Your task to perform on an android device: Search for usb-a to usb-b on target, select the first entry, add it to the cart, then select checkout. Image 0: 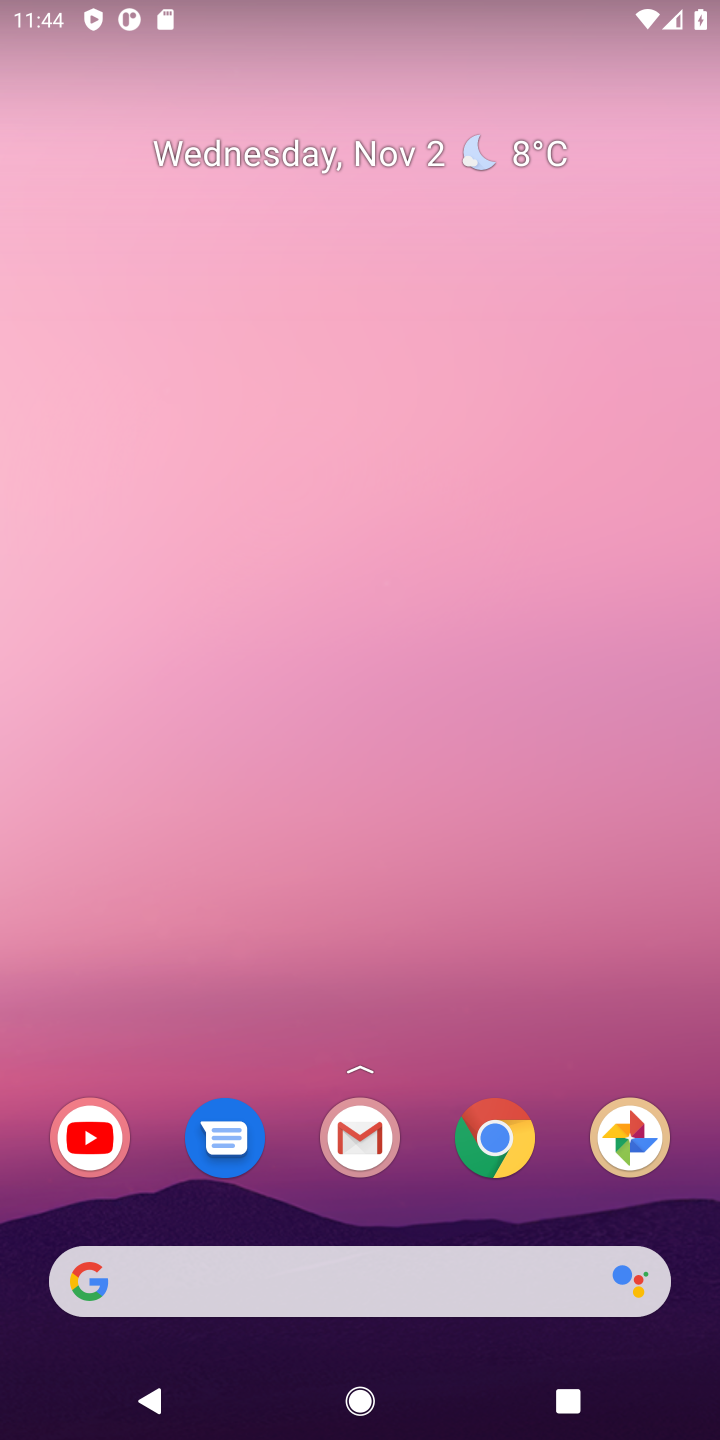
Step 0: click (482, 1122)
Your task to perform on an android device: Search for usb-a to usb-b on target, select the first entry, add it to the cart, then select checkout. Image 1: 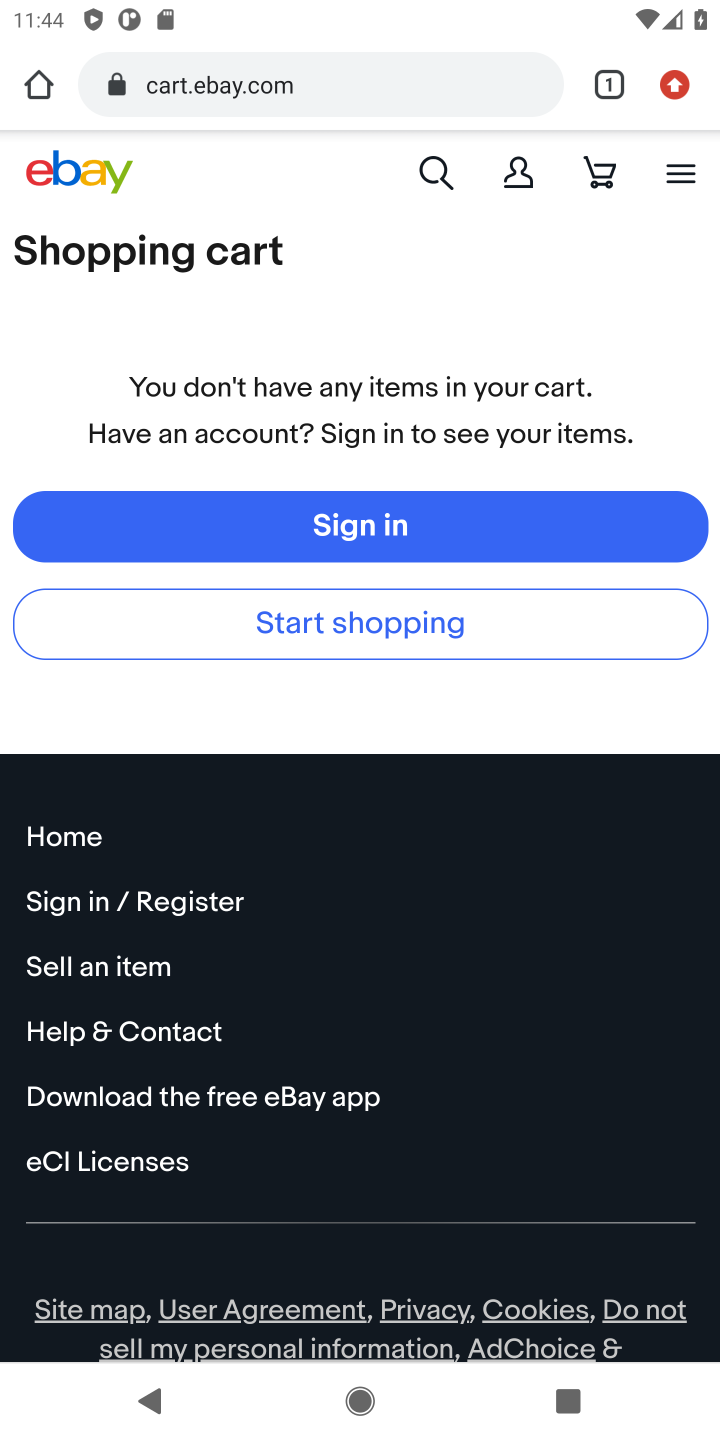
Step 1: click (209, 163)
Your task to perform on an android device: Search for usb-a to usb-b on target, select the first entry, add it to the cart, then select checkout. Image 2: 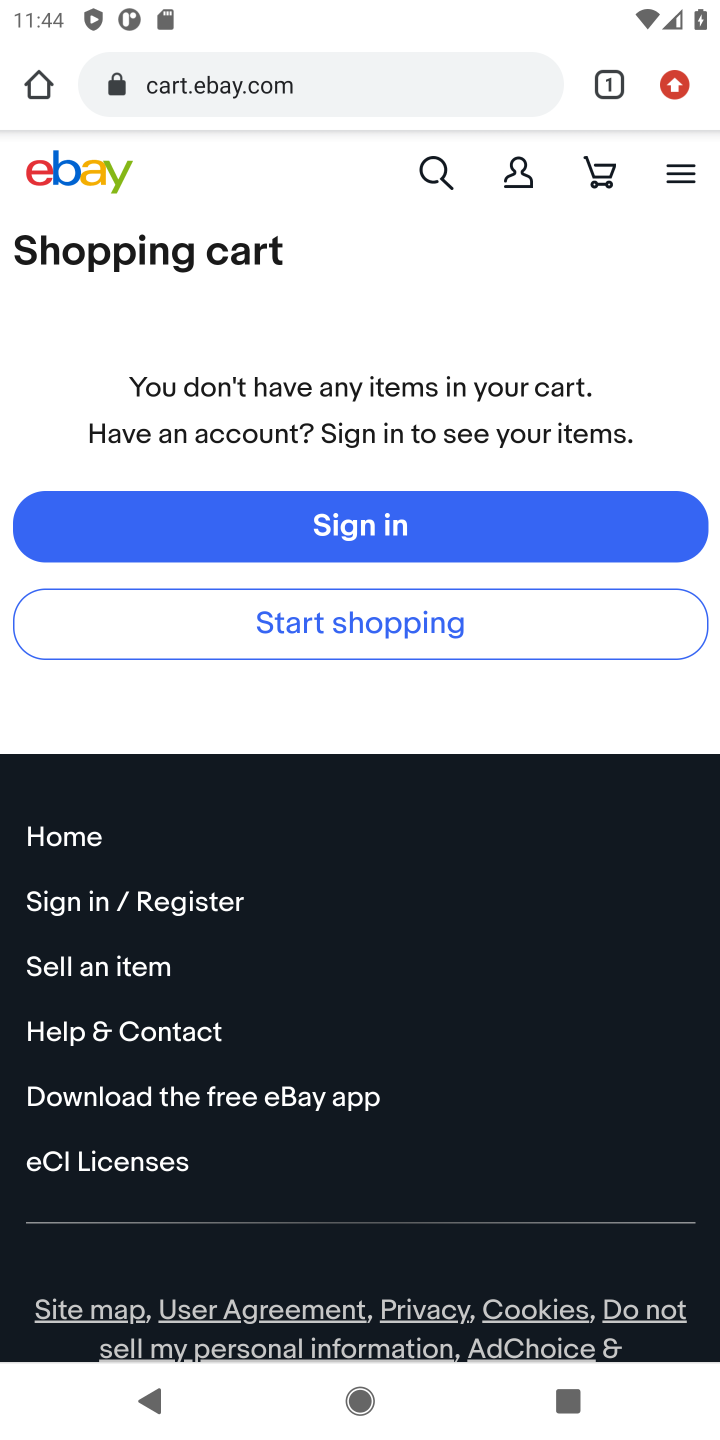
Step 2: click (204, 93)
Your task to perform on an android device: Search for usb-a to usb-b on target, select the first entry, add it to the cart, then select checkout. Image 3: 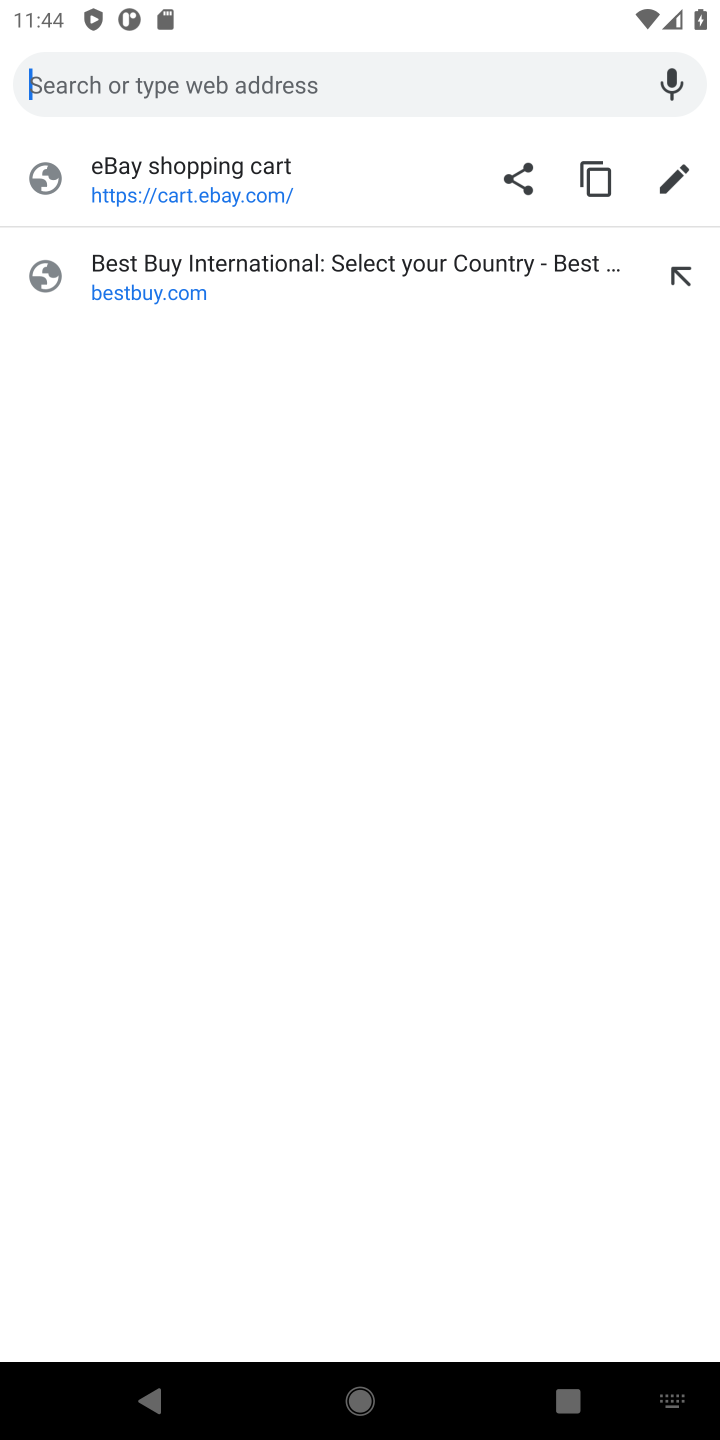
Step 3: type "target"
Your task to perform on an android device: Search for usb-a to usb-b on target, select the first entry, add it to the cart, then select checkout. Image 4: 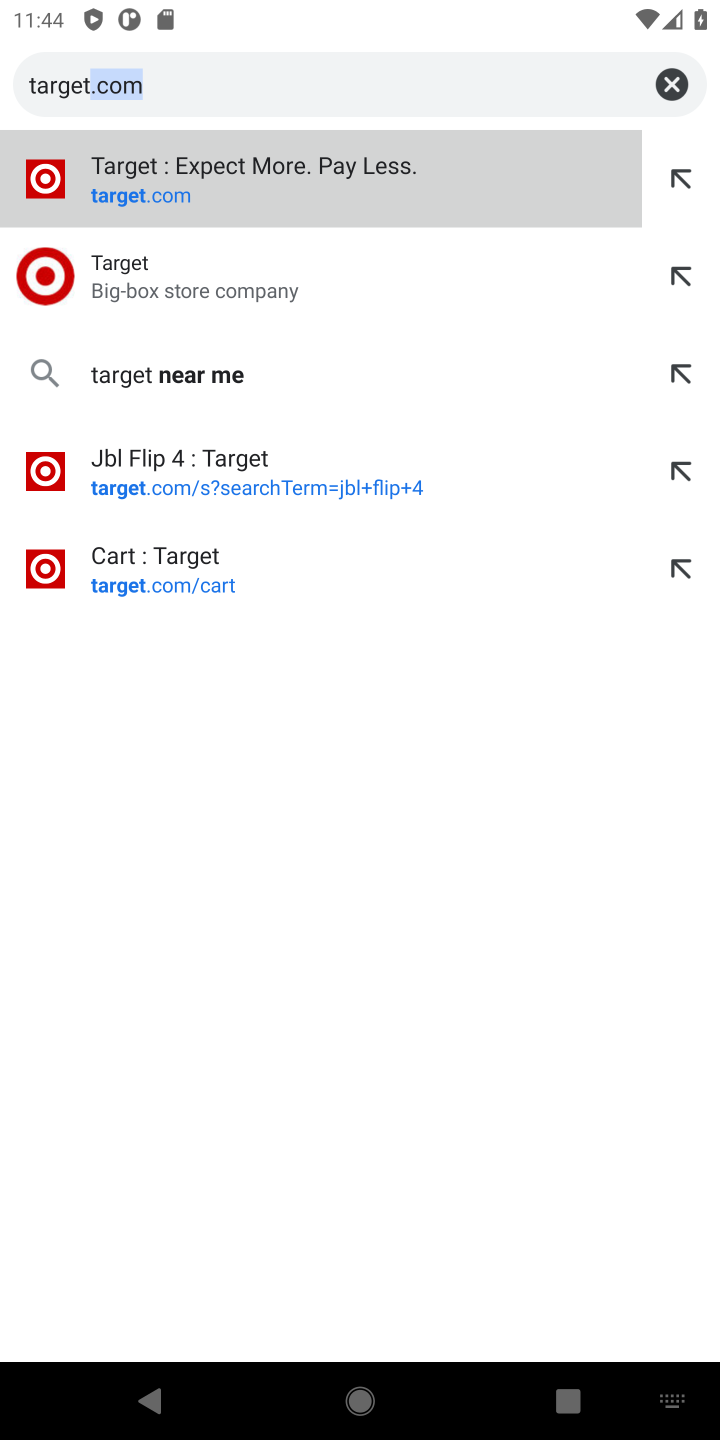
Step 4: click (501, 275)
Your task to perform on an android device: Search for usb-a to usb-b on target, select the first entry, add it to the cart, then select checkout. Image 5: 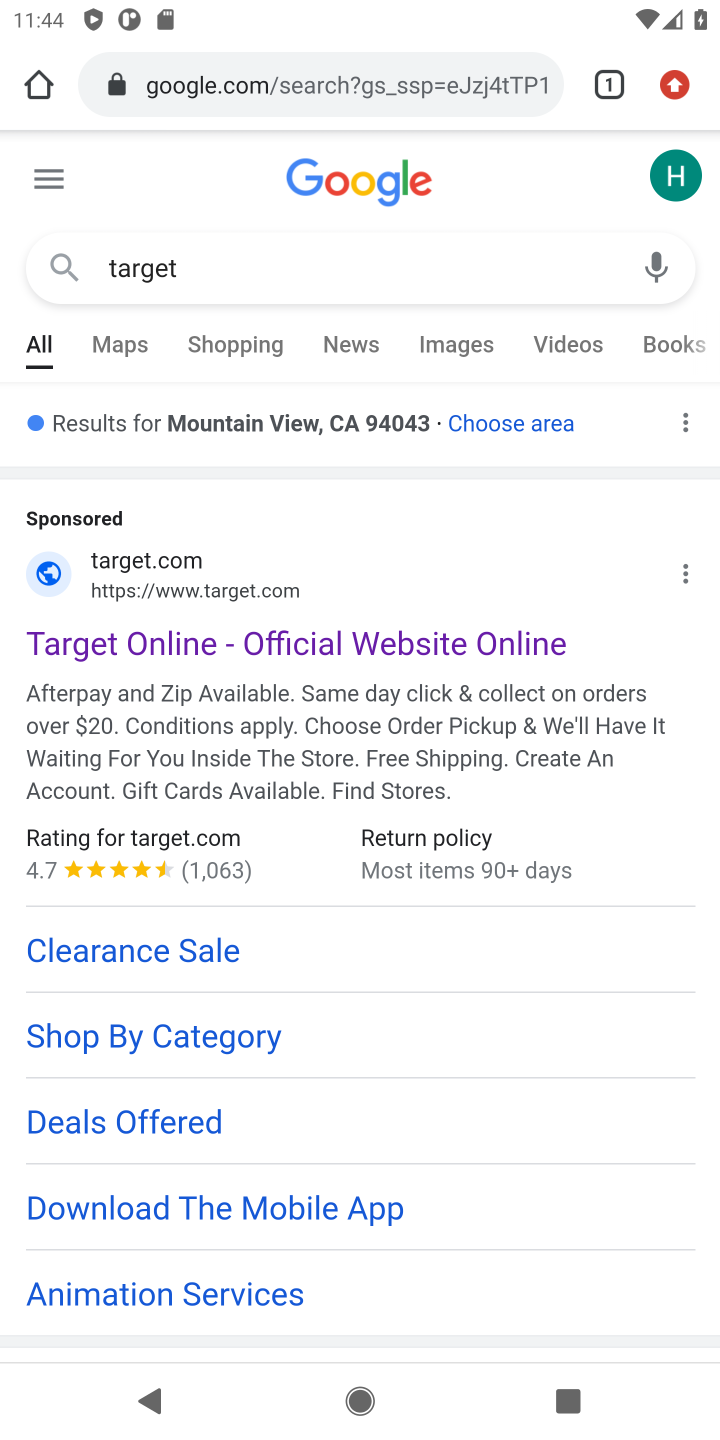
Step 5: click (88, 617)
Your task to perform on an android device: Search for usb-a to usb-b on target, select the first entry, add it to the cart, then select checkout. Image 6: 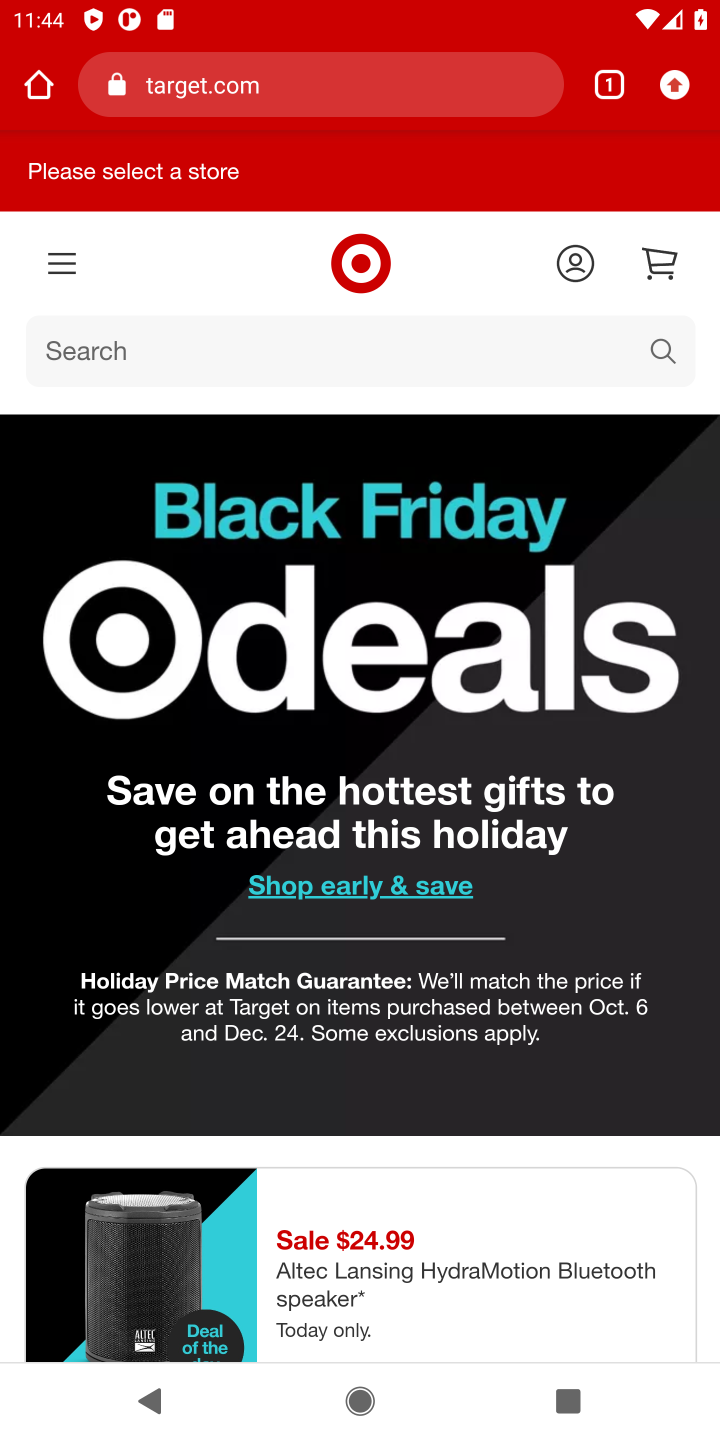
Step 6: click (235, 329)
Your task to perform on an android device: Search for usb-a to usb-b on target, select the first entry, add it to the cart, then select checkout. Image 7: 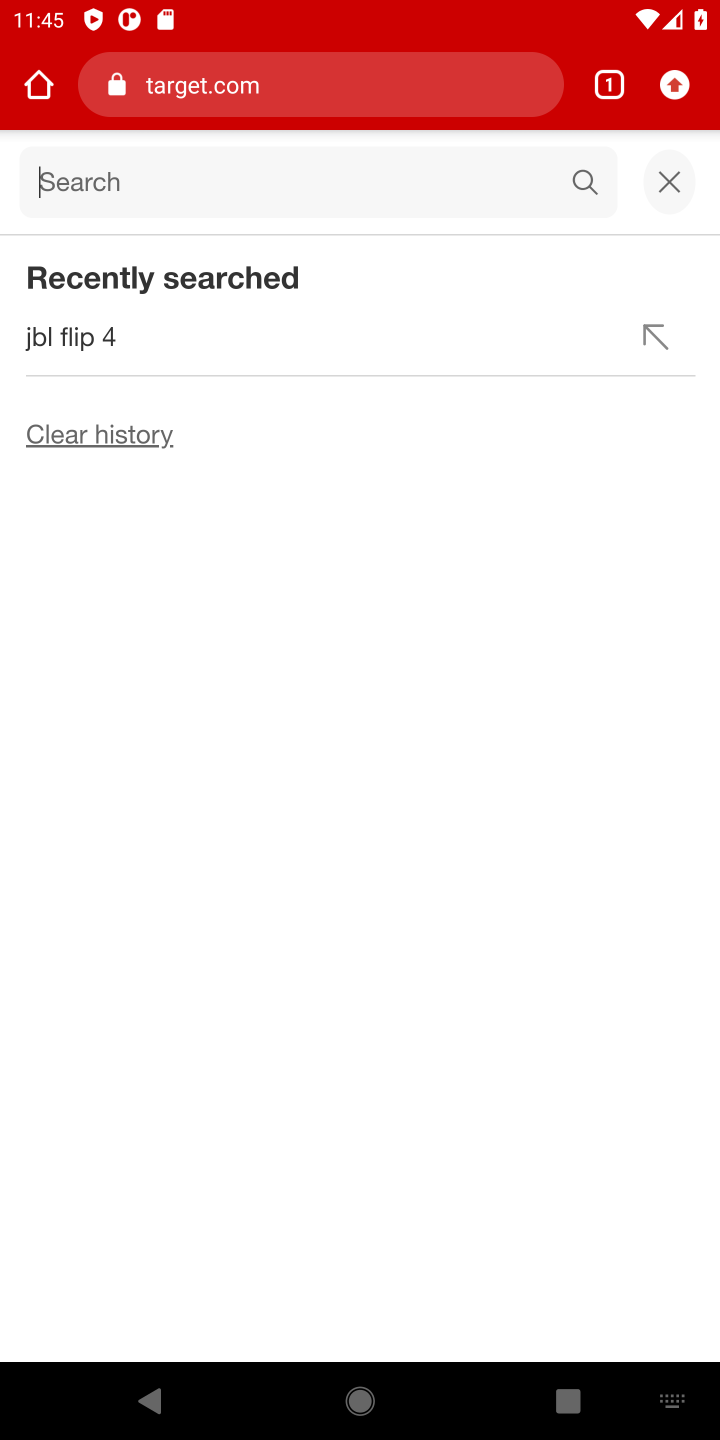
Step 7: click (319, 342)
Your task to perform on an android device: Search for usb-a to usb-b on target, select the first entry, add it to the cart, then select checkout. Image 8: 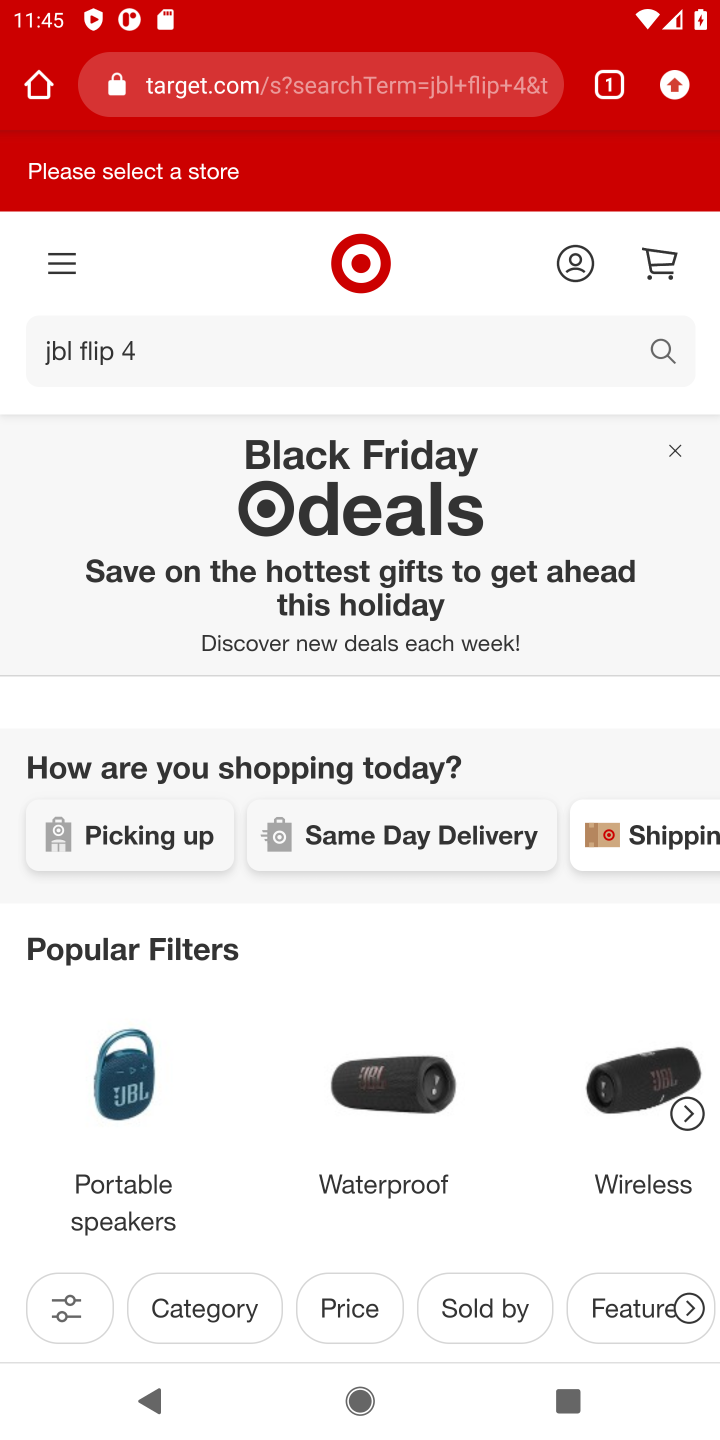
Step 8: type "usb-a to usb-b"
Your task to perform on an android device: Search for usb-a to usb-b on target, select the first entry, add it to the cart, then select checkout. Image 9: 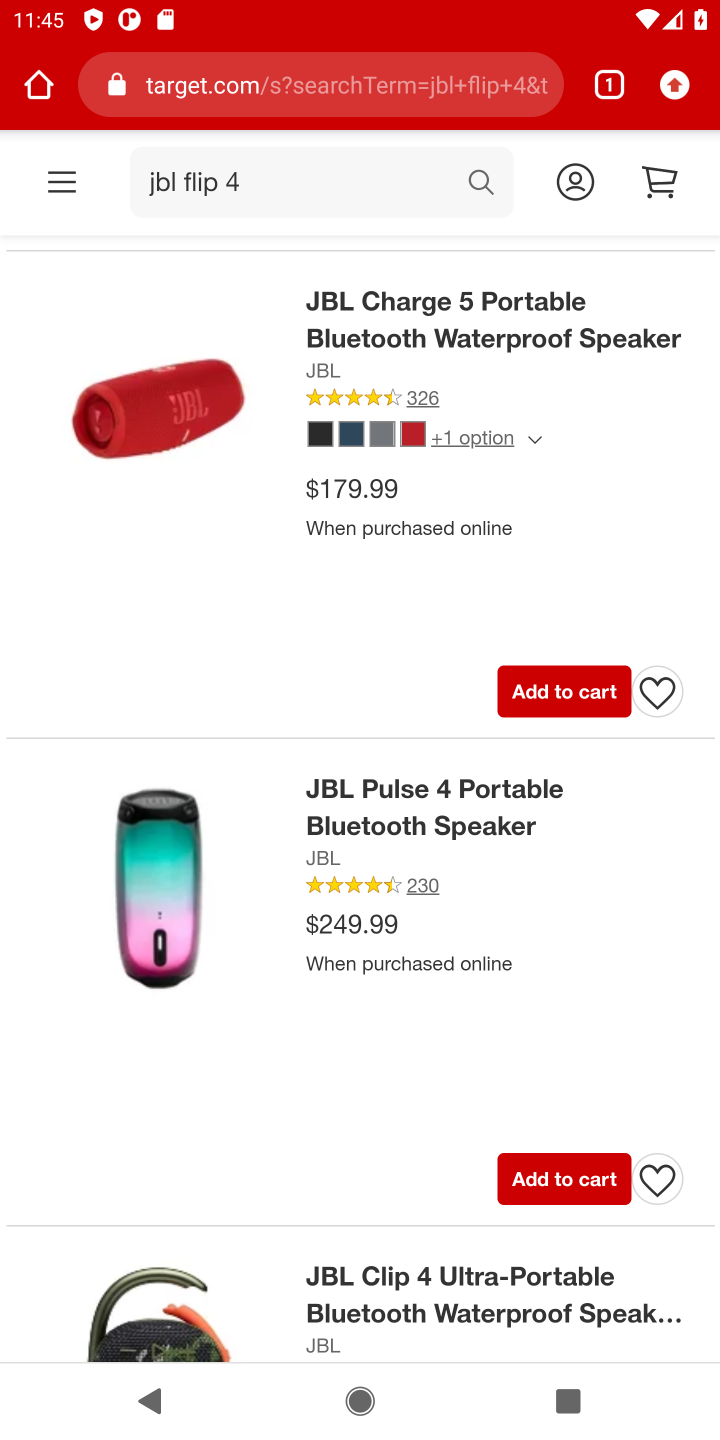
Step 9: click (645, 336)
Your task to perform on an android device: Search for usb-a to usb-b on target, select the first entry, add it to the cart, then select checkout. Image 10: 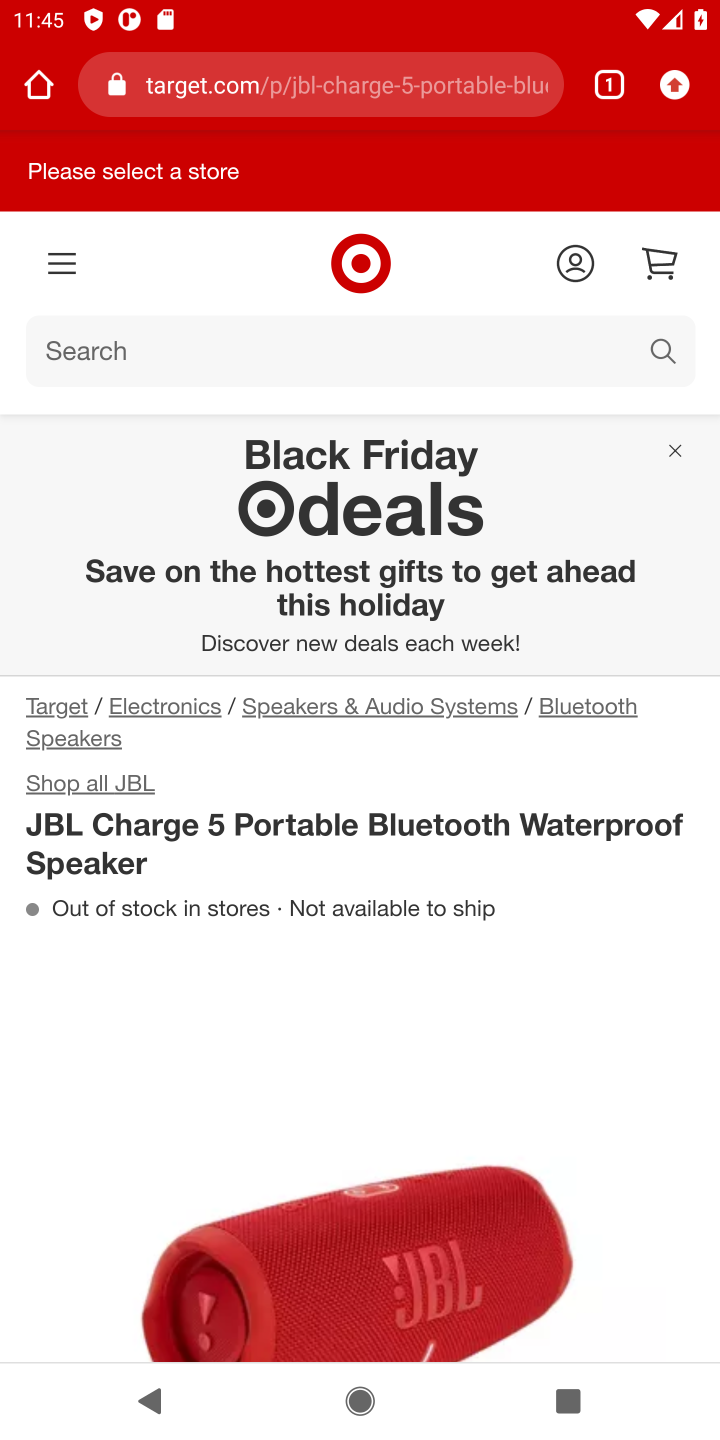
Step 10: click (487, 190)
Your task to perform on an android device: Search for usb-a to usb-b on target, select the first entry, add it to the cart, then select checkout. Image 11: 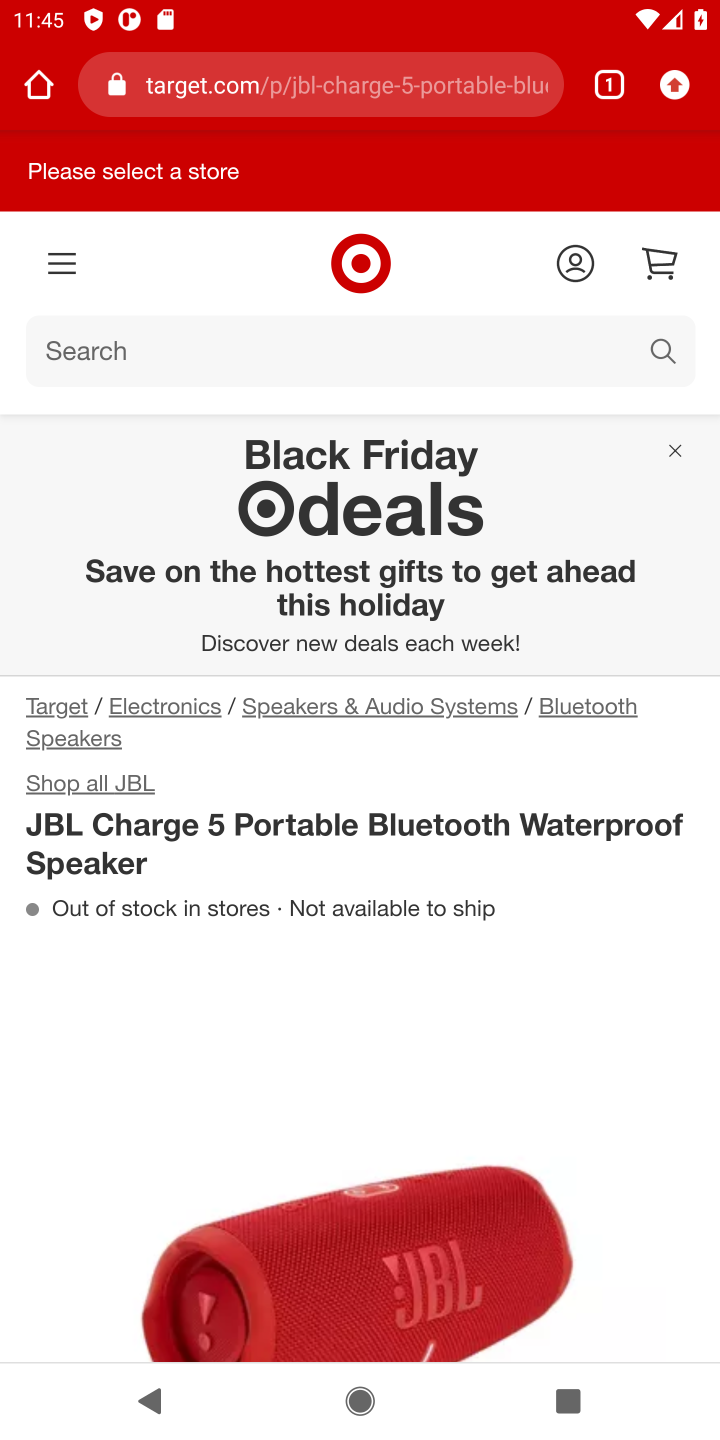
Step 11: click (368, 267)
Your task to perform on an android device: Search for usb-a to usb-b on target, select the first entry, add it to the cart, then select checkout. Image 12: 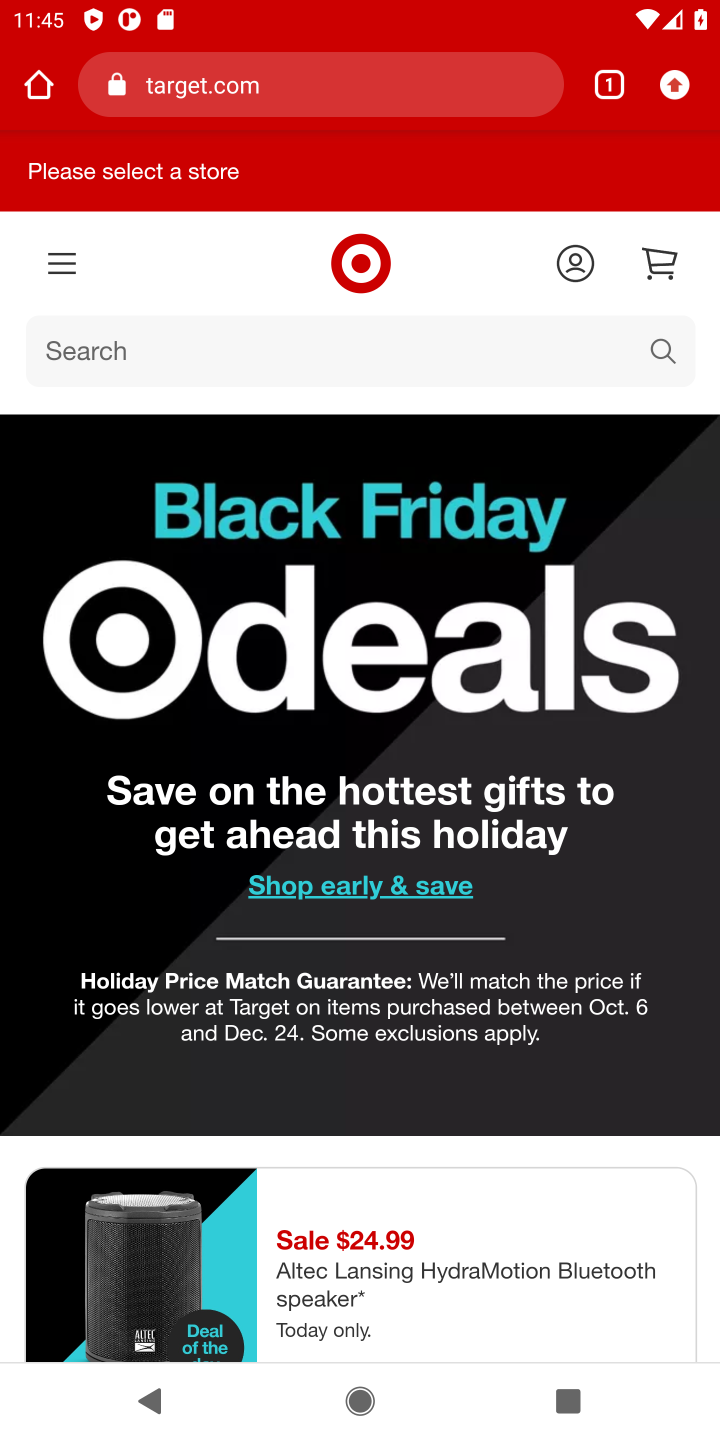
Step 12: click (341, 338)
Your task to perform on an android device: Search for usb-a to usb-b on target, select the first entry, add it to the cart, then select checkout. Image 13: 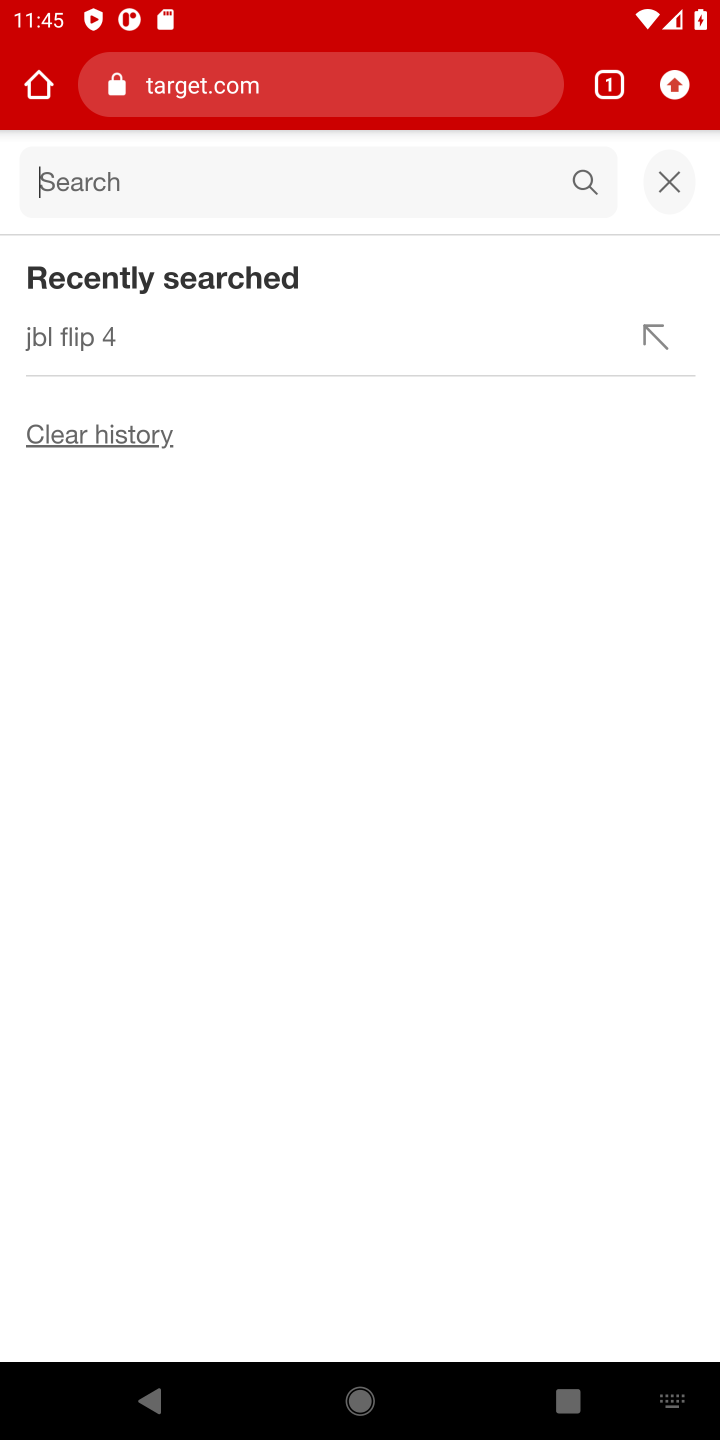
Step 13: type "usb-a to usb-b"
Your task to perform on an android device: Search for usb-a to usb-b on target, select the first entry, add it to the cart, then select checkout. Image 14: 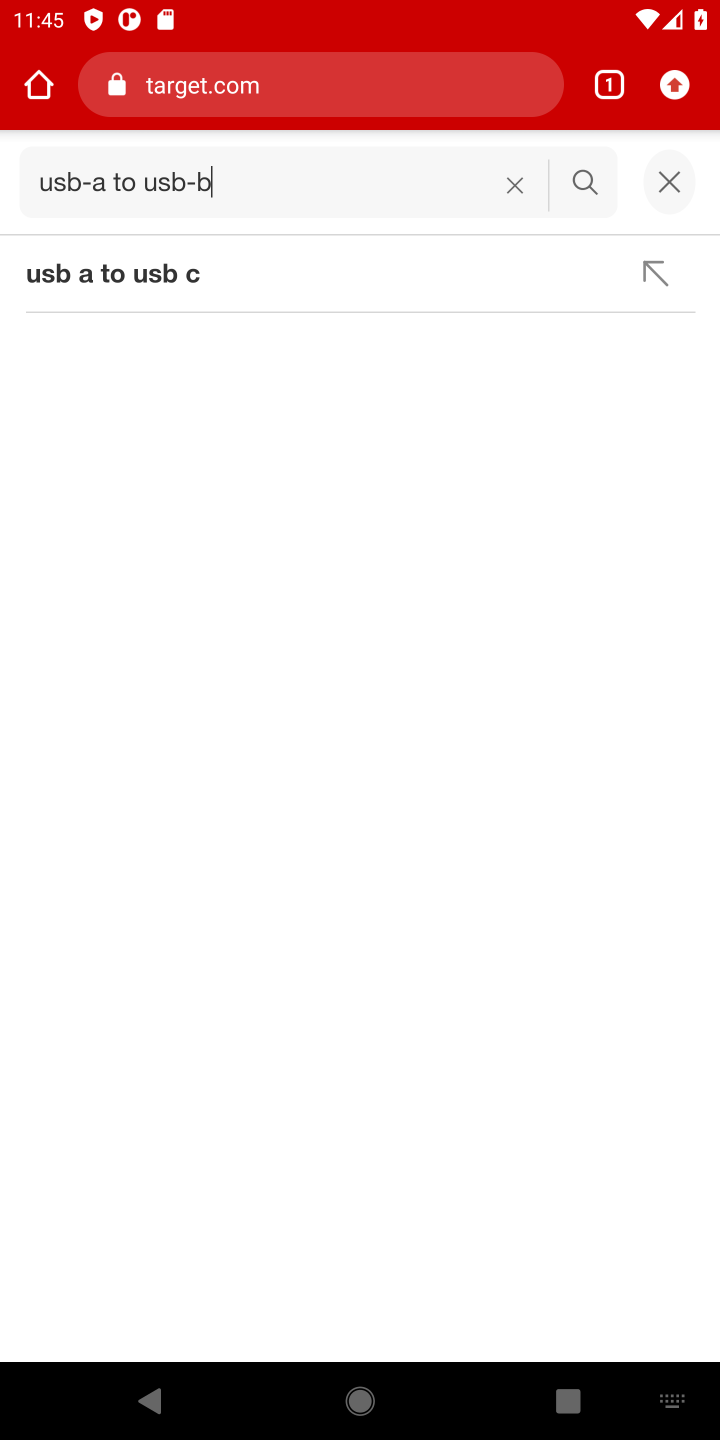
Step 14: click (596, 193)
Your task to perform on an android device: Search for usb-a to usb-b on target, select the first entry, add it to the cart, then select checkout. Image 15: 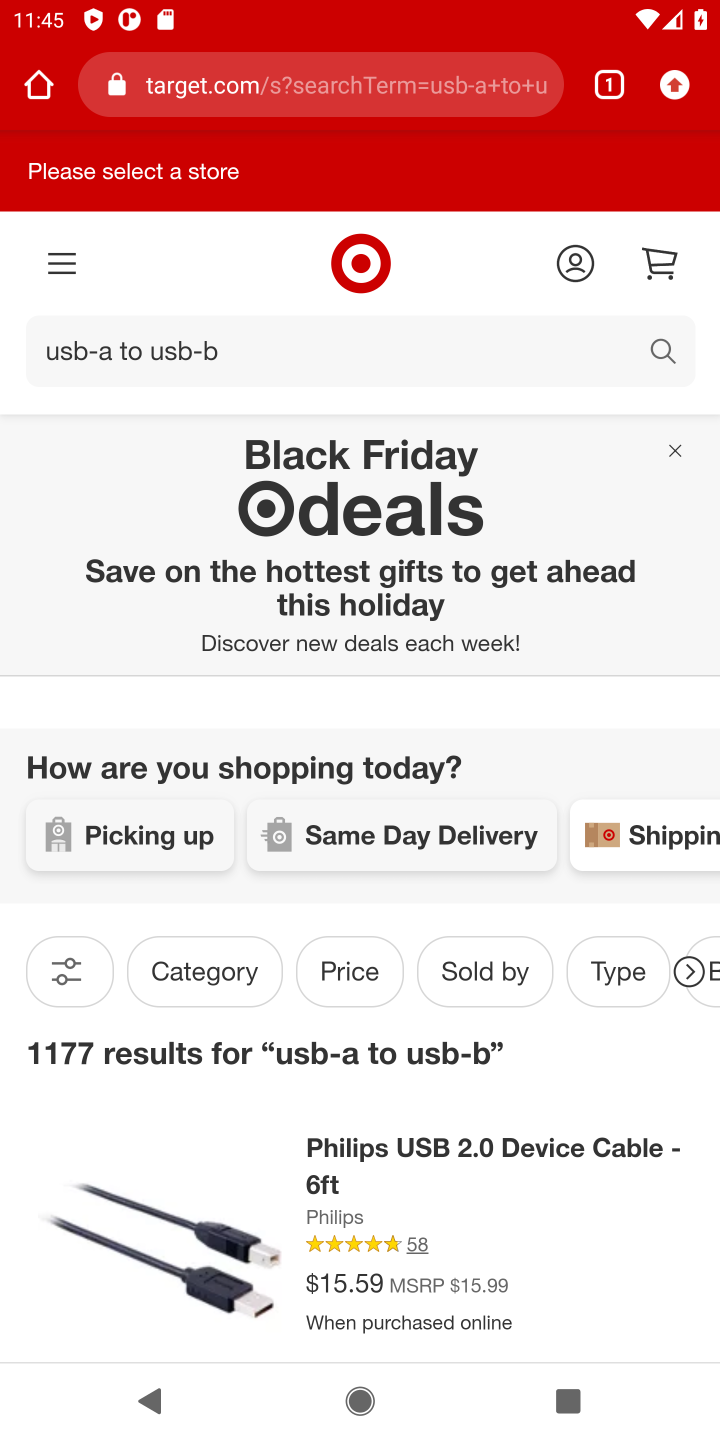
Step 15: drag from (322, 1099) to (401, 464)
Your task to perform on an android device: Search for usb-a to usb-b on target, select the first entry, add it to the cart, then select checkout. Image 16: 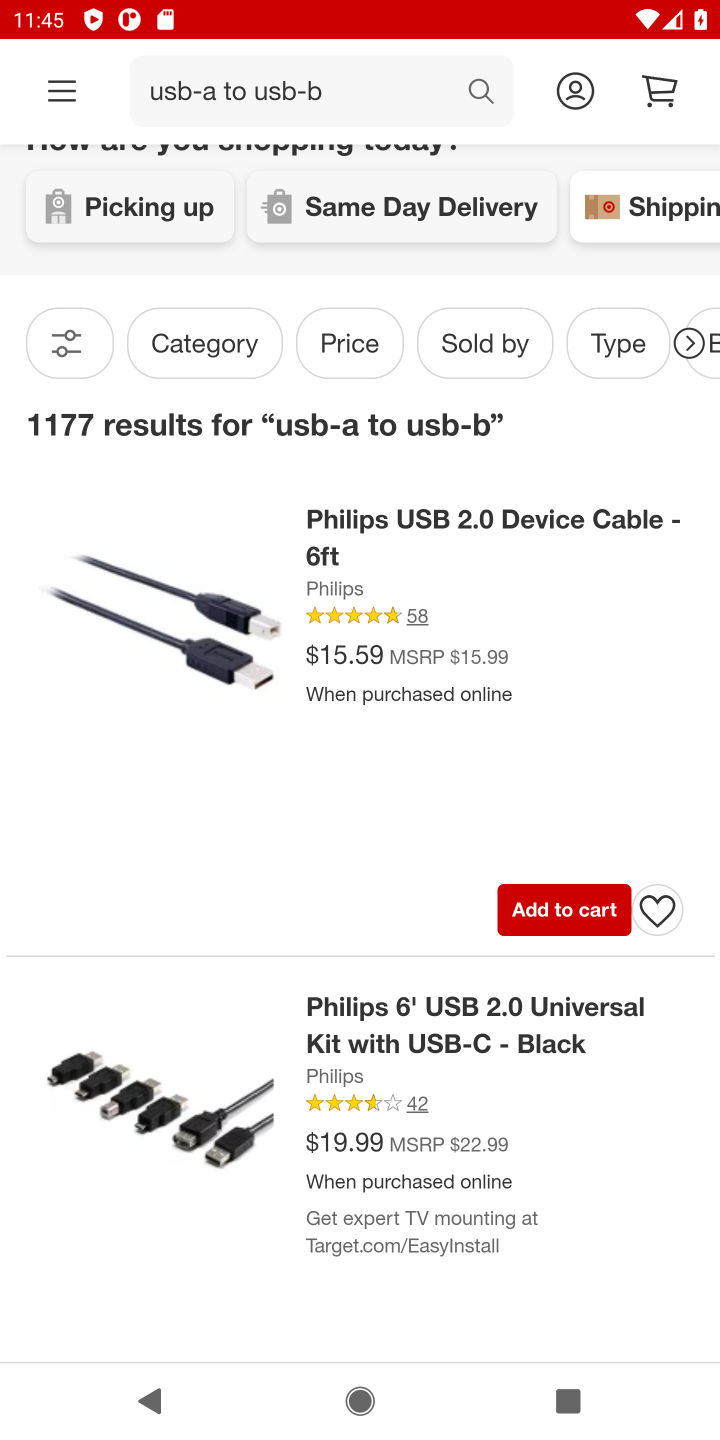
Step 16: click (331, 539)
Your task to perform on an android device: Search for usb-a to usb-b on target, select the first entry, add it to the cart, then select checkout. Image 17: 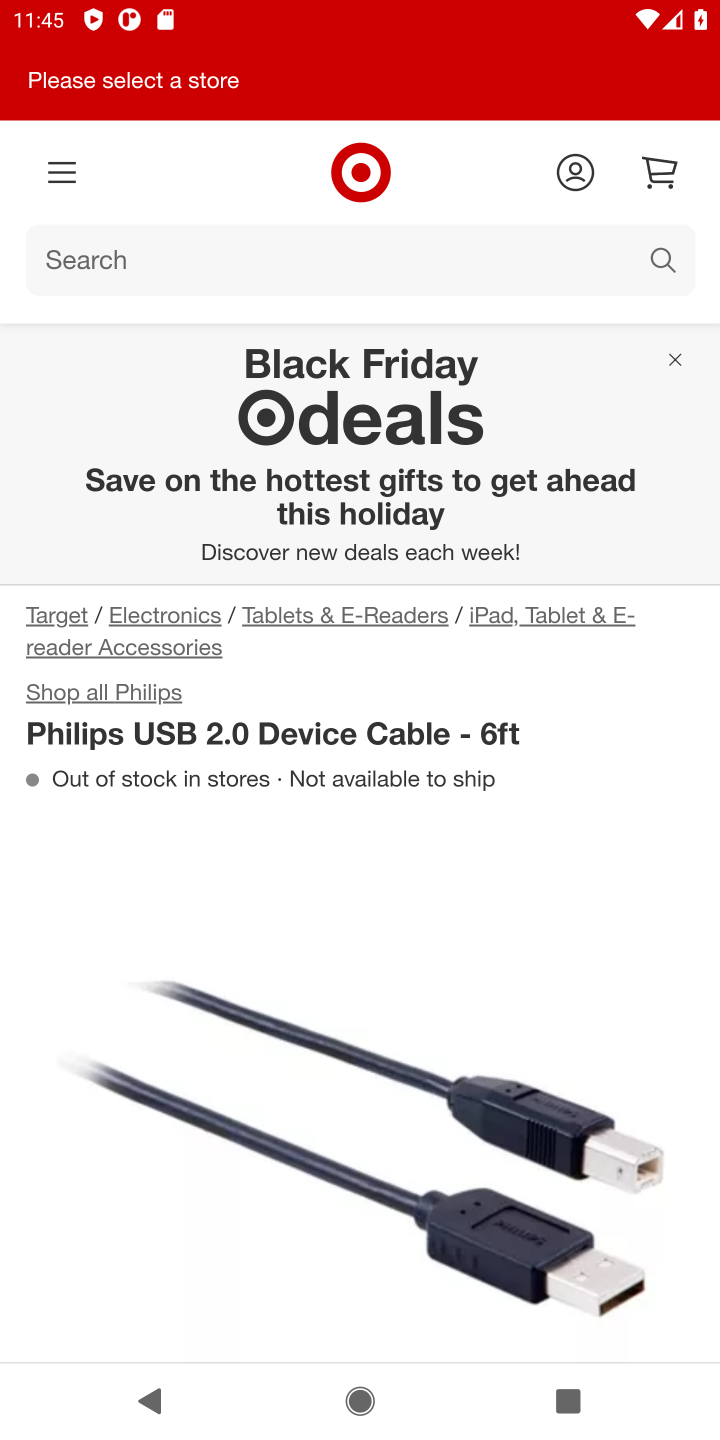
Step 17: drag from (689, 1019) to (697, 276)
Your task to perform on an android device: Search for usb-a to usb-b on target, select the first entry, add it to the cart, then select checkout. Image 18: 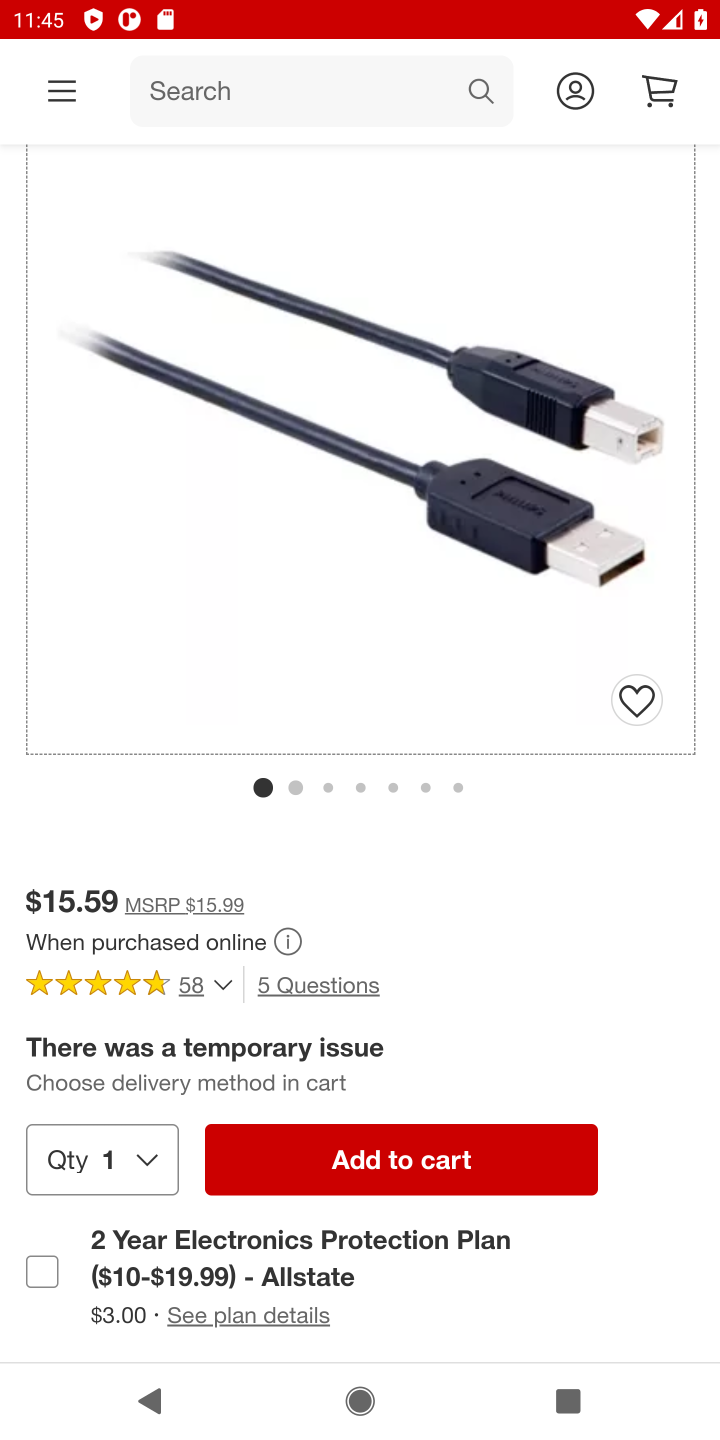
Step 18: click (405, 1148)
Your task to perform on an android device: Search for usb-a to usb-b on target, select the first entry, add it to the cart, then select checkout. Image 19: 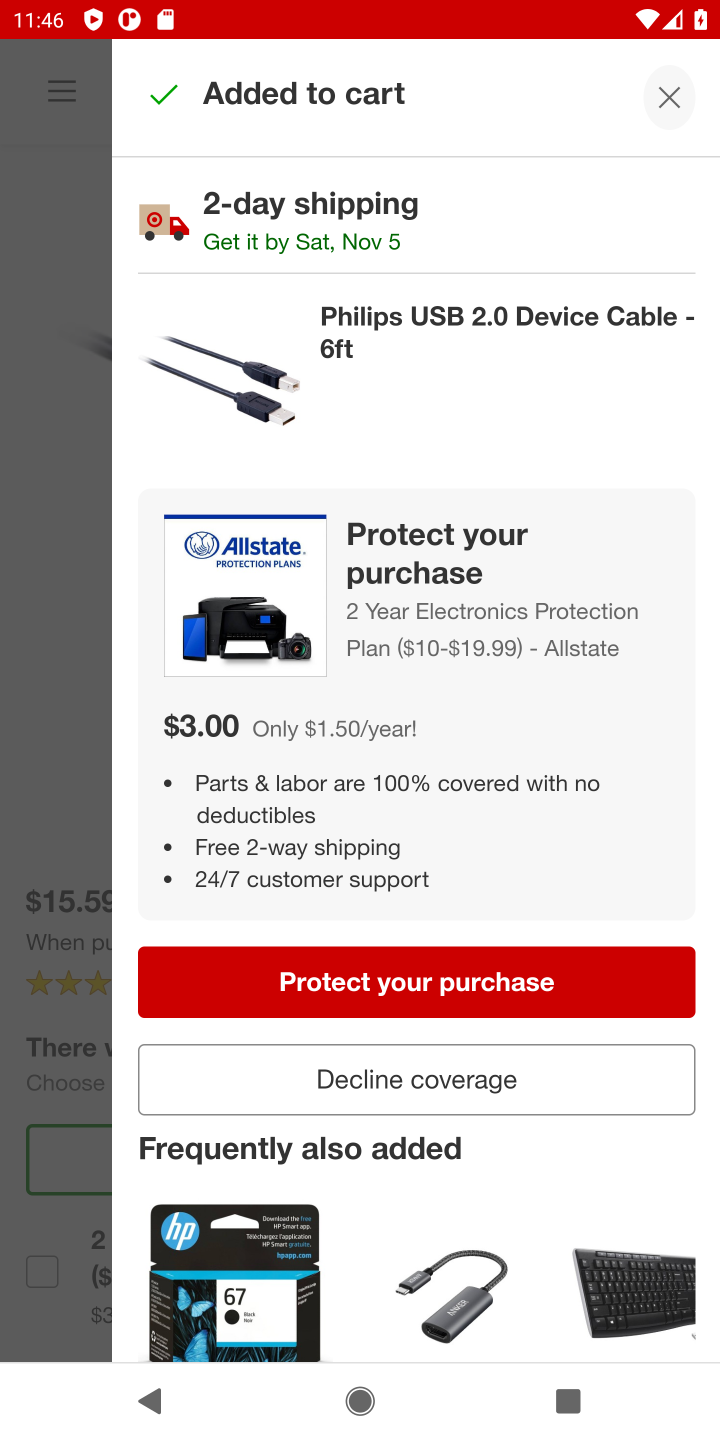
Step 19: click (656, 88)
Your task to perform on an android device: Search for usb-a to usb-b on target, select the first entry, add it to the cart, then select checkout. Image 20: 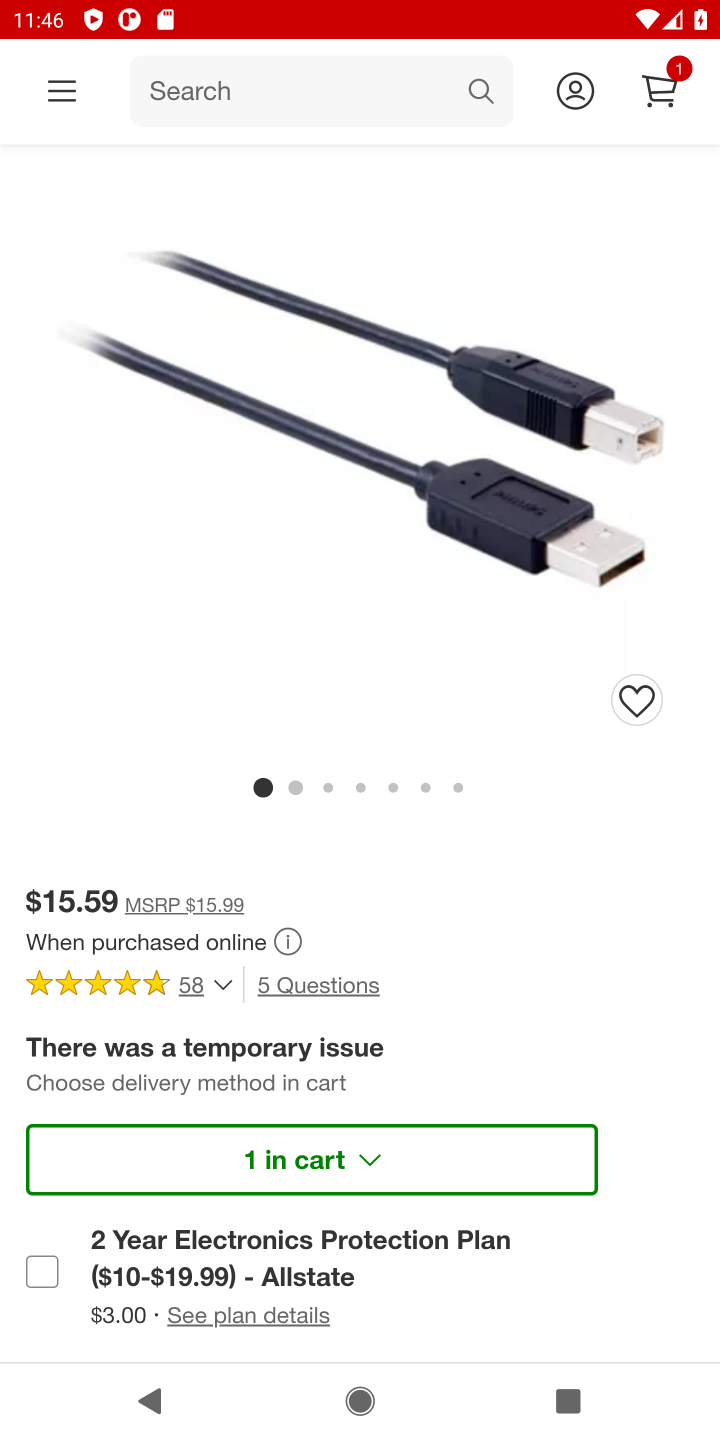
Step 20: click (656, 88)
Your task to perform on an android device: Search for usb-a to usb-b on target, select the first entry, add it to the cart, then select checkout. Image 21: 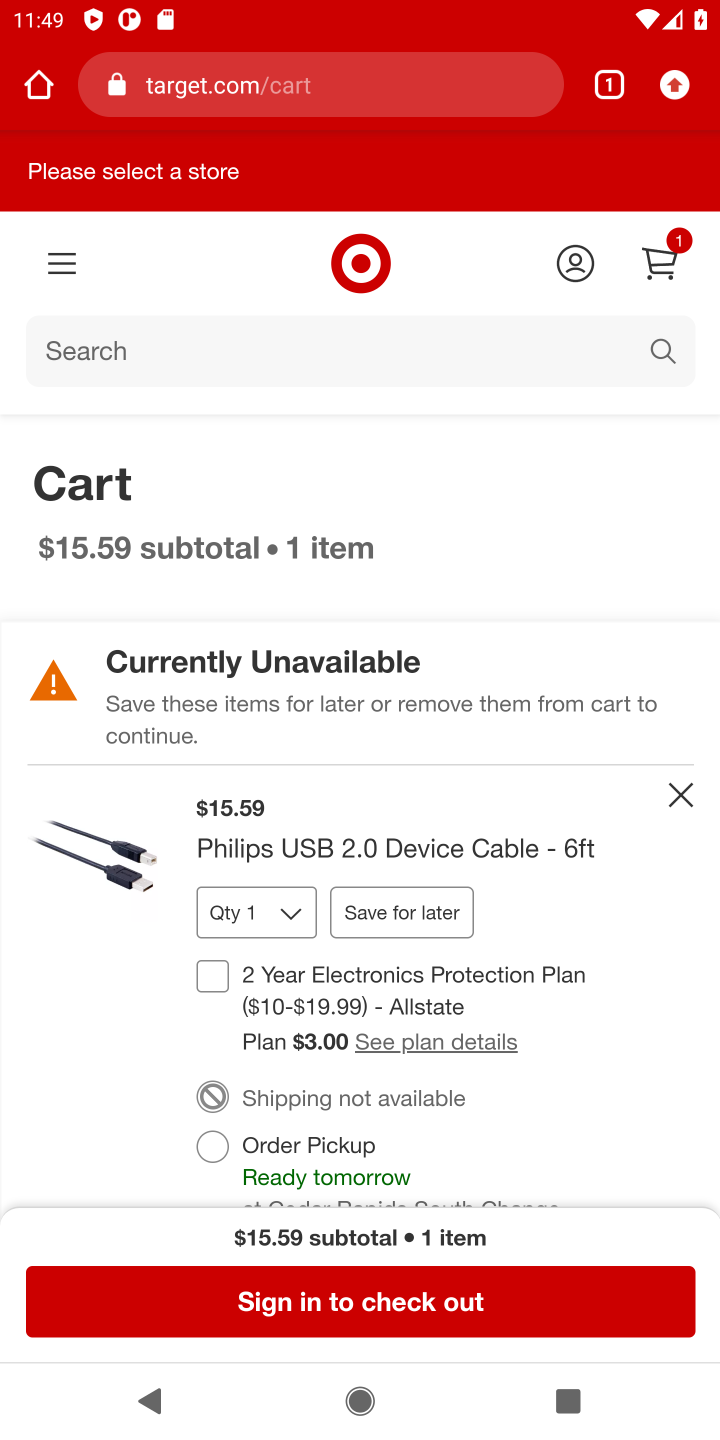
Step 21: task complete